Your task to perform on an android device: turn off location history Image 0: 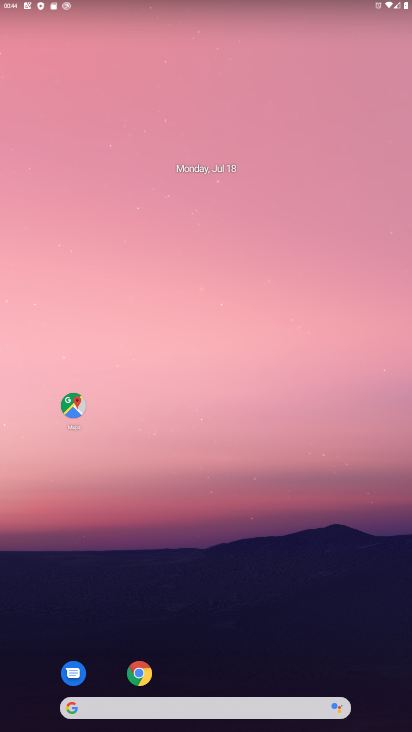
Step 0: drag from (230, 673) to (218, 58)
Your task to perform on an android device: turn off location history Image 1: 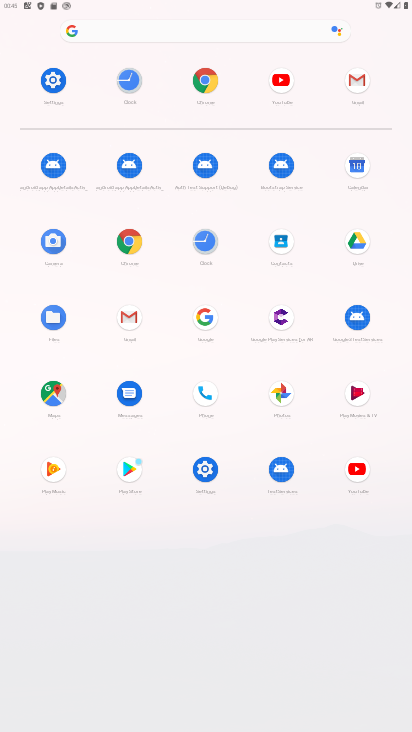
Step 1: click (44, 85)
Your task to perform on an android device: turn off location history Image 2: 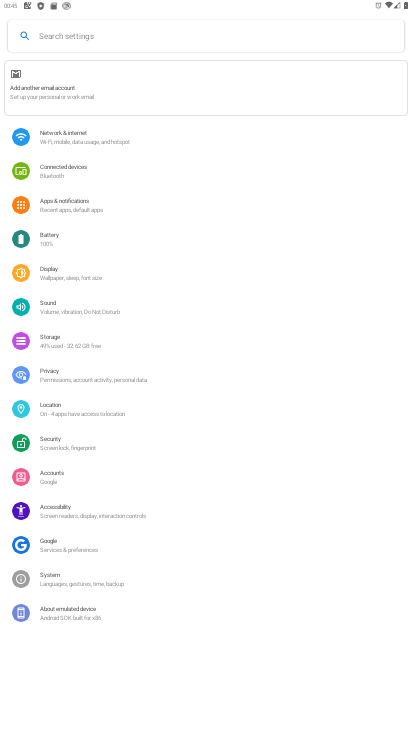
Step 2: click (103, 405)
Your task to perform on an android device: turn off location history Image 3: 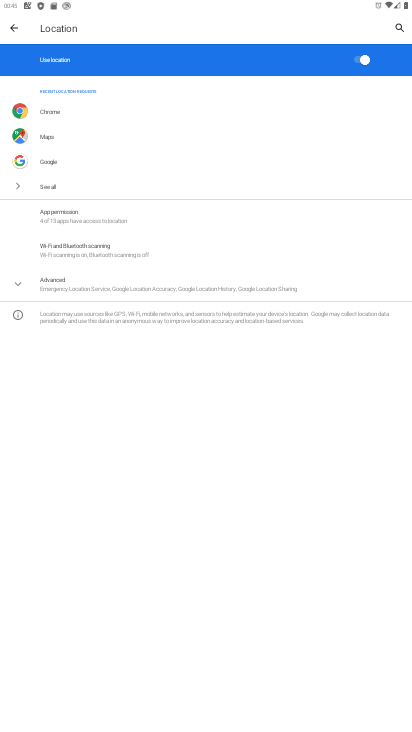
Step 3: click (375, 62)
Your task to perform on an android device: turn off location history Image 4: 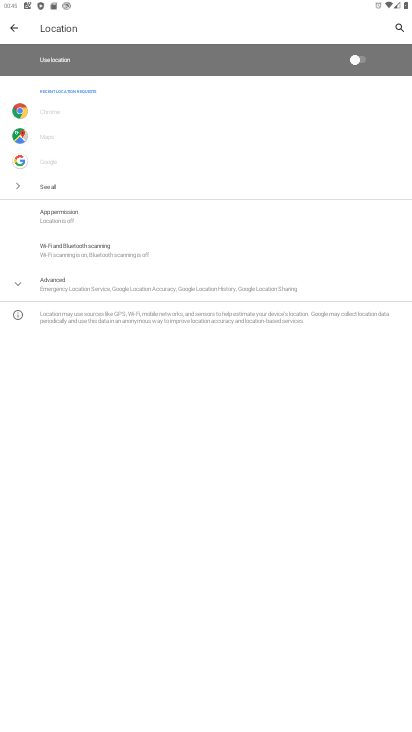
Step 4: task complete